Your task to perform on an android device: Go to accessibility settings Image 0: 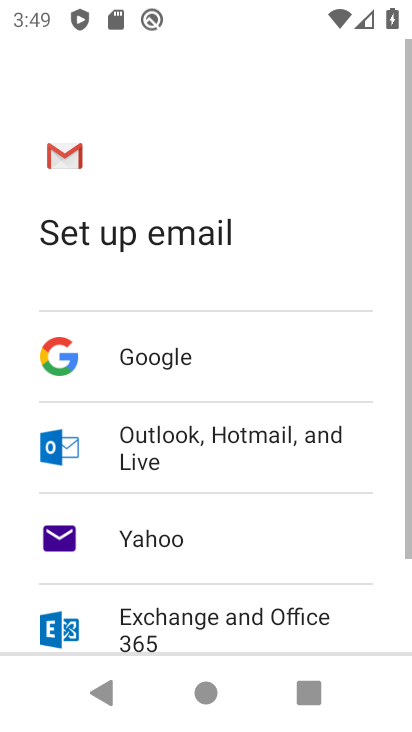
Step 0: press back button
Your task to perform on an android device: Go to accessibility settings Image 1: 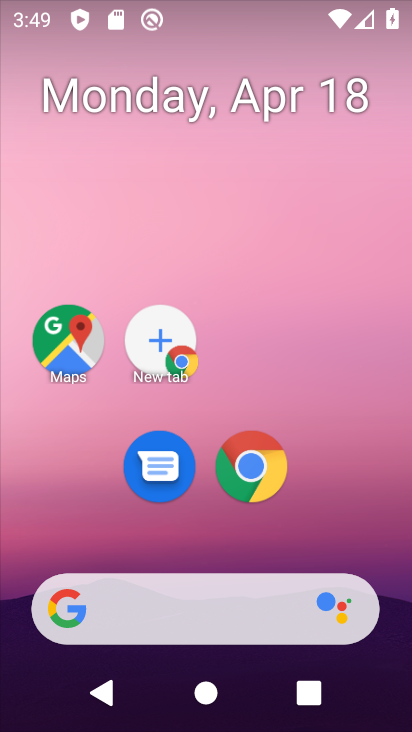
Step 1: drag from (346, 498) to (302, 59)
Your task to perform on an android device: Go to accessibility settings Image 2: 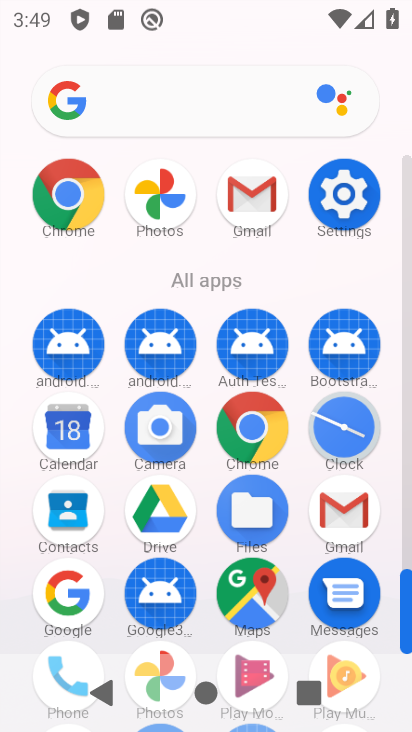
Step 2: drag from (23, 527) to (3, 231)
Your task to perform on an android device: Go to accessibility settings Image 3: 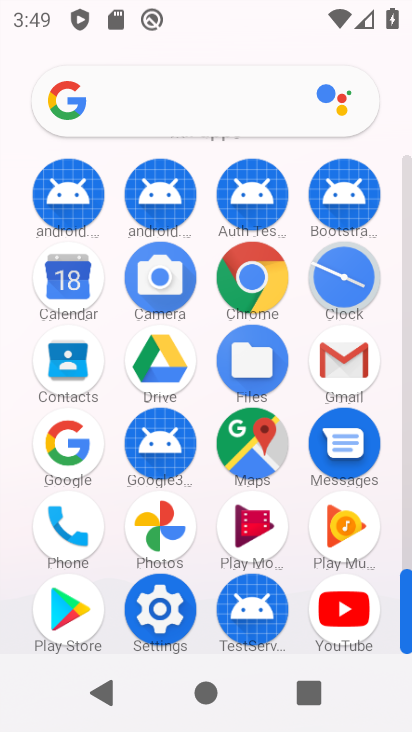
Step 3: click (161, 606)
Your task to perform on an android device: Go to accessibility settings Image 4: 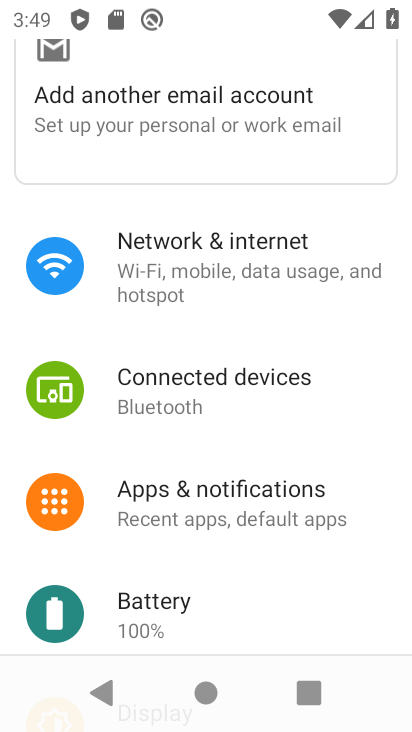
Step 4: drag from (275, 484) to (272, 234)
Your task to perform on an android device: Go to accessibility settings Image 5: 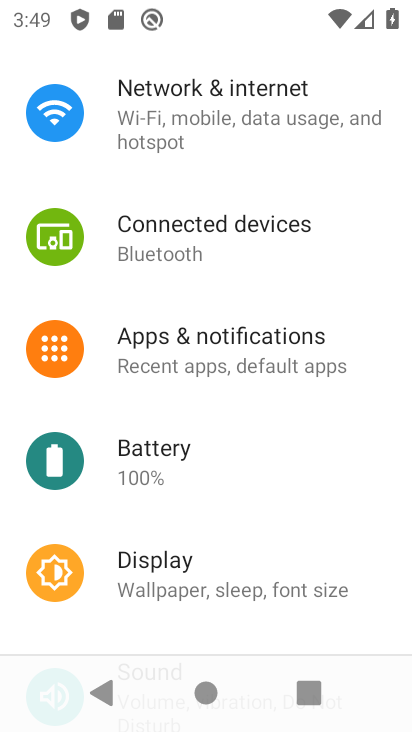
Step 5: drag from (272, 539) to (268, 152)
Your task to perform on an android device: Go to accessibility settings Image 6: 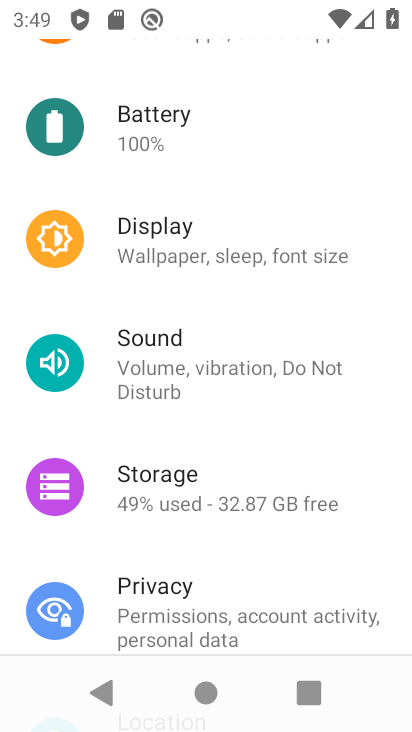
Step 6: drag from (264, 451) to (268, 167)
Your task to perform on an android device: Go to accessibility settings Image 7: 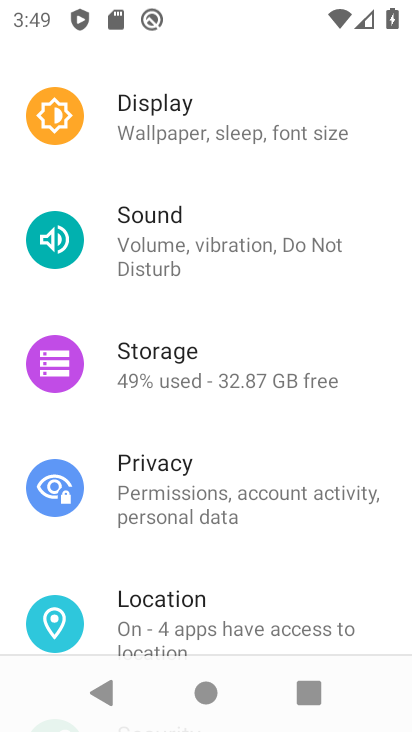
Step 7: drag from (237, 453) to (246, 150)
Your task to perform on an android device: Go to accessibility settings Image 8: 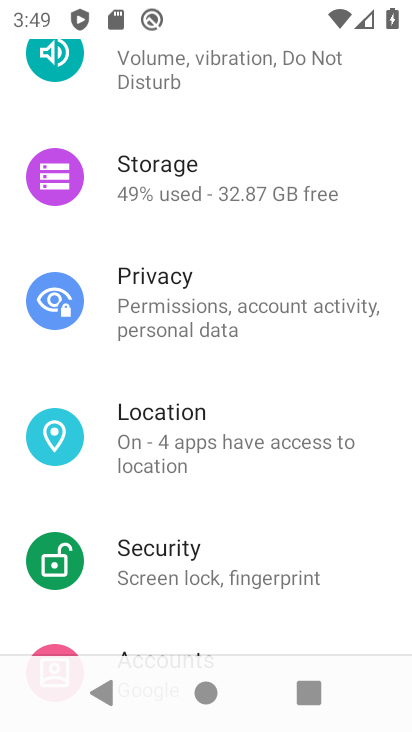
Step 8: drag from (257, 387) to (255, 115)
Your task to perform on an android device: Go to accessibility settings Image 9: 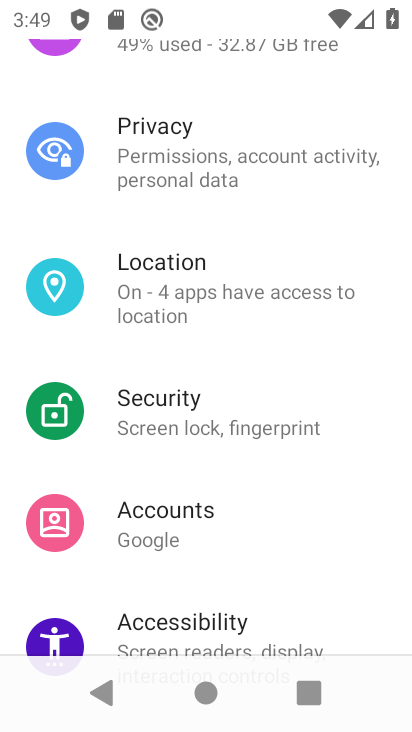
Step 9: drag from (263, 507) to (268, 199)
Your task to perform on an android device: Go to accessibility settings Image 10: 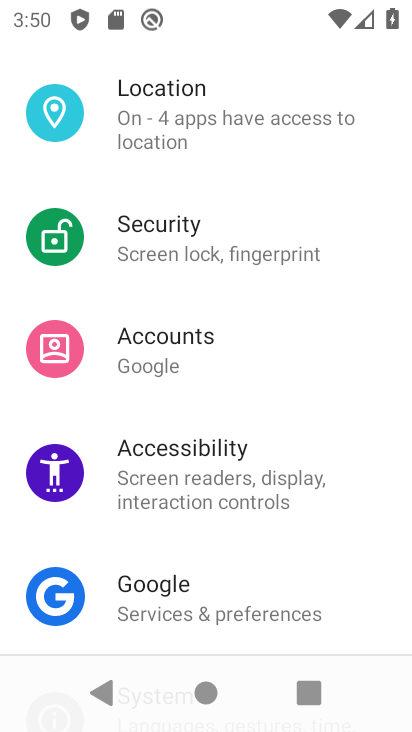
Step 10: click (223, 474)
Your task to perform on an android device: Go to accessibility settings Image 11: 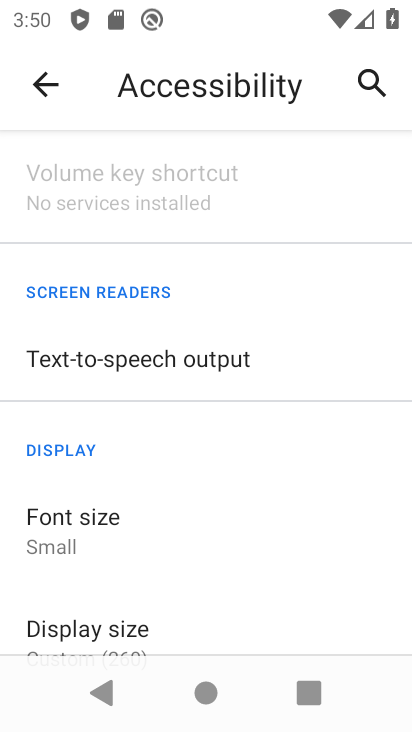
Step 11: task complete